Your task to perform on an android device: Open Google Maps and go to "Timeline" Image 0: 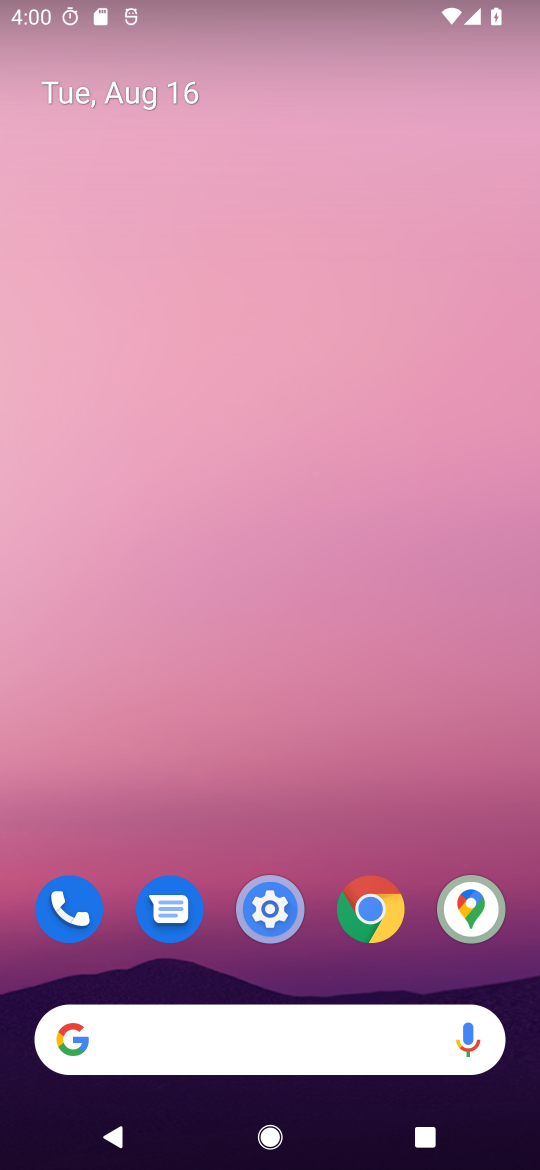
Step 0: click (473, 910)
Your task to perform on an android device: Open Google Maps and go to "Timeline" Image 1: 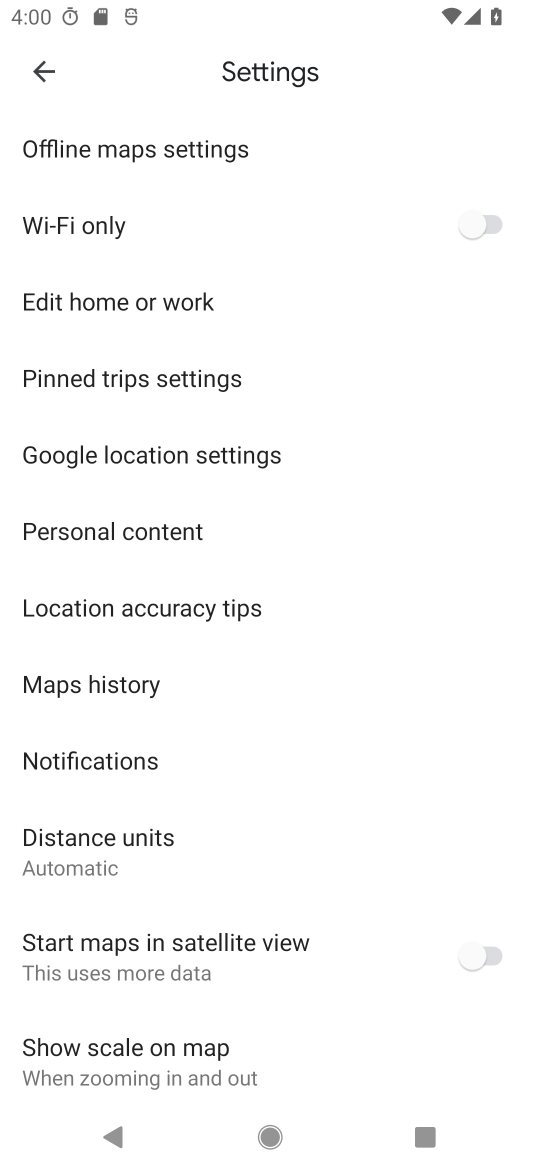
Step 1: click (33, 69)
Your task to perform on an android device: Open Google Maps and go to "Timeline" Image 2: 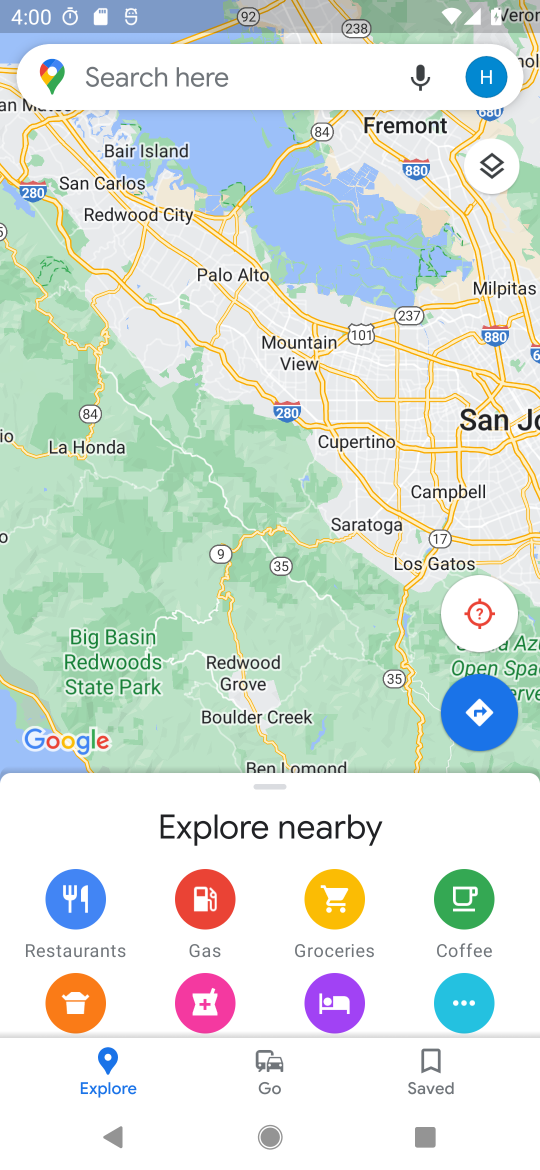
Step 2: click (51, 70)
Your task to perform on an android device: Open Google Maps and go to "Timeline" Image 3: 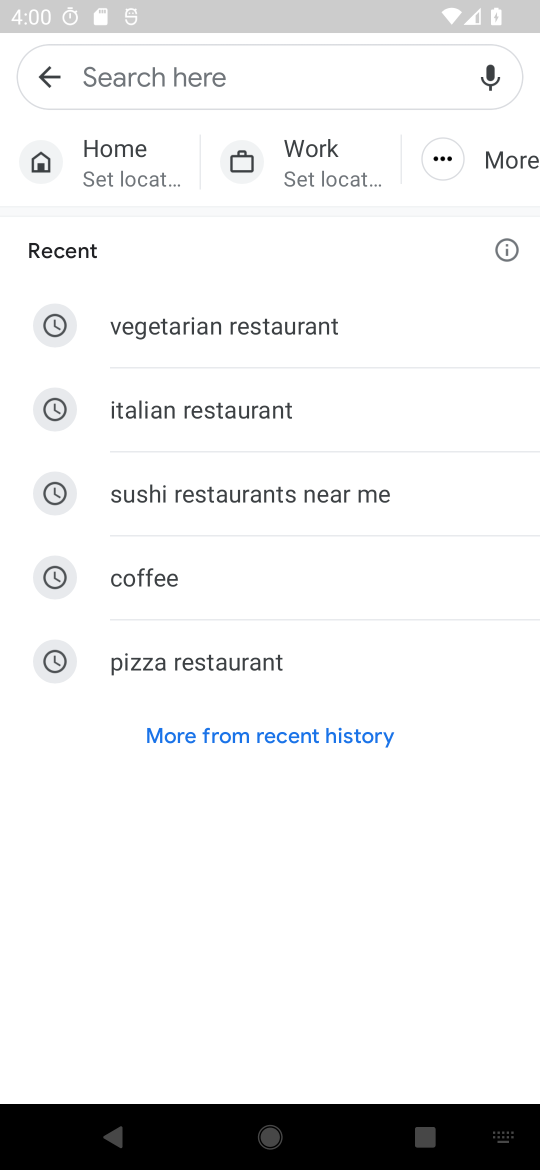
Step 3: click (48, 73)
Your task to perform on an android device: Open Google Maps and go to "Timeline" Image 4: 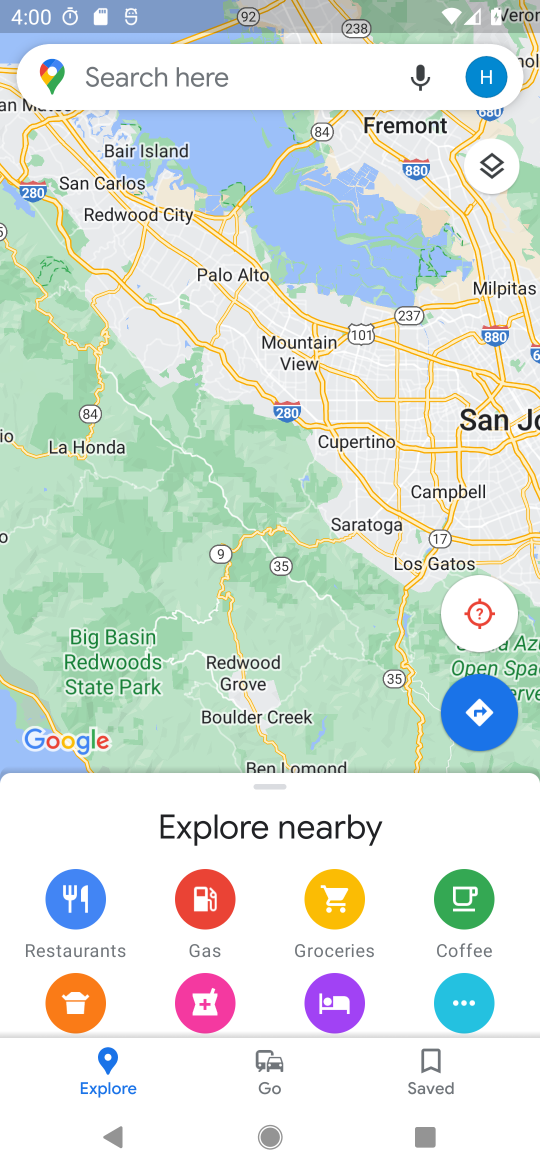
Step 4: click (427, 1065)
Your task to perform on an android device: Open Google Maps and go to "Timeline" Image 5: 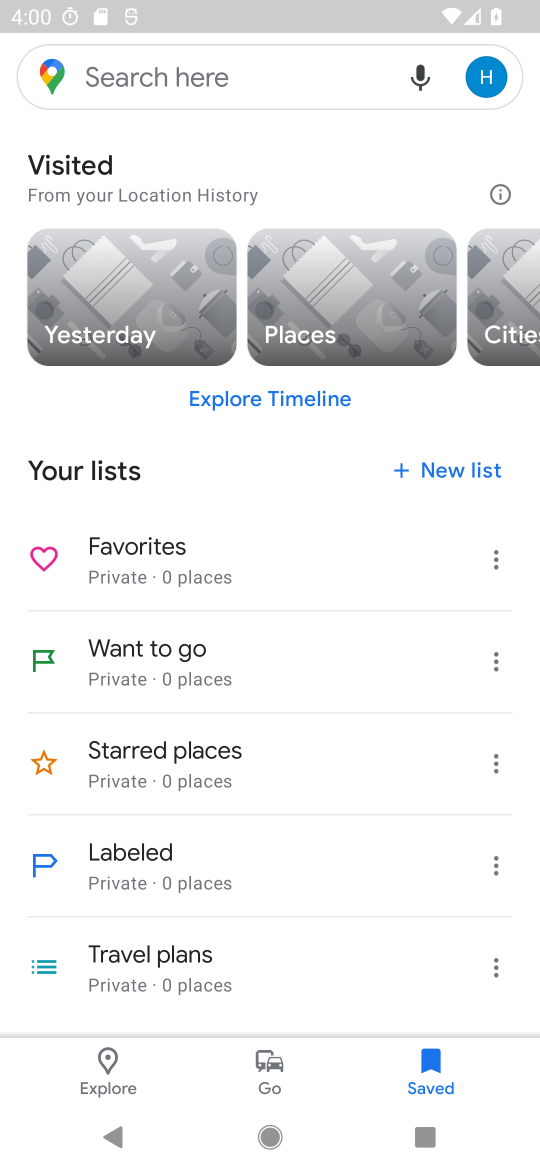
Step 5: click (308, 396)
Your task to perform on an android device: Open Google Maps and go to "Timeline" Image 6: 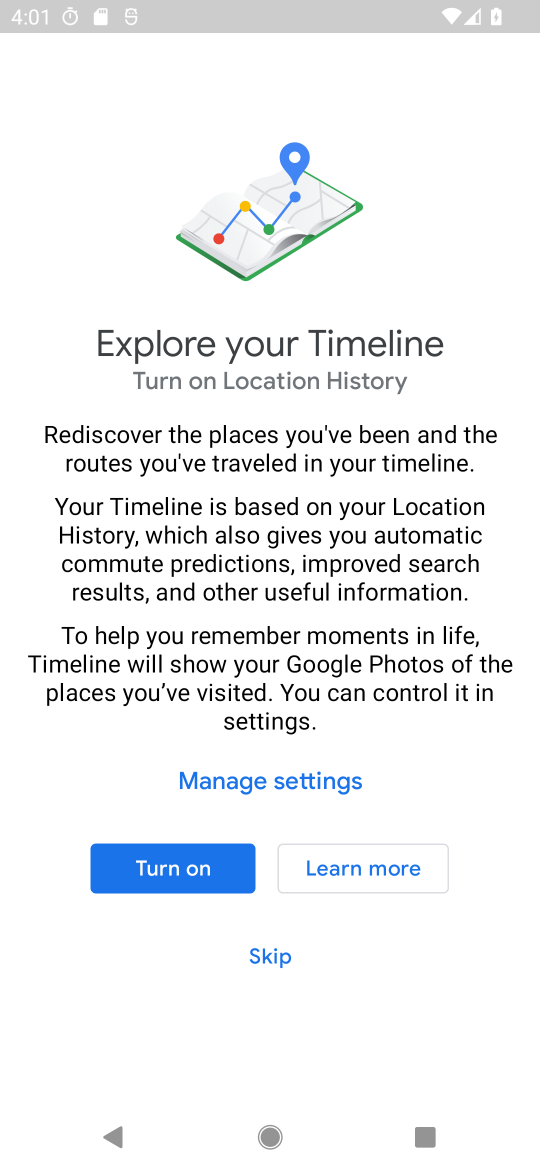
Step 6: click (180, 859)
Your task to perform on an android device: Open Google Maps and go to "Timeline" Image 7: 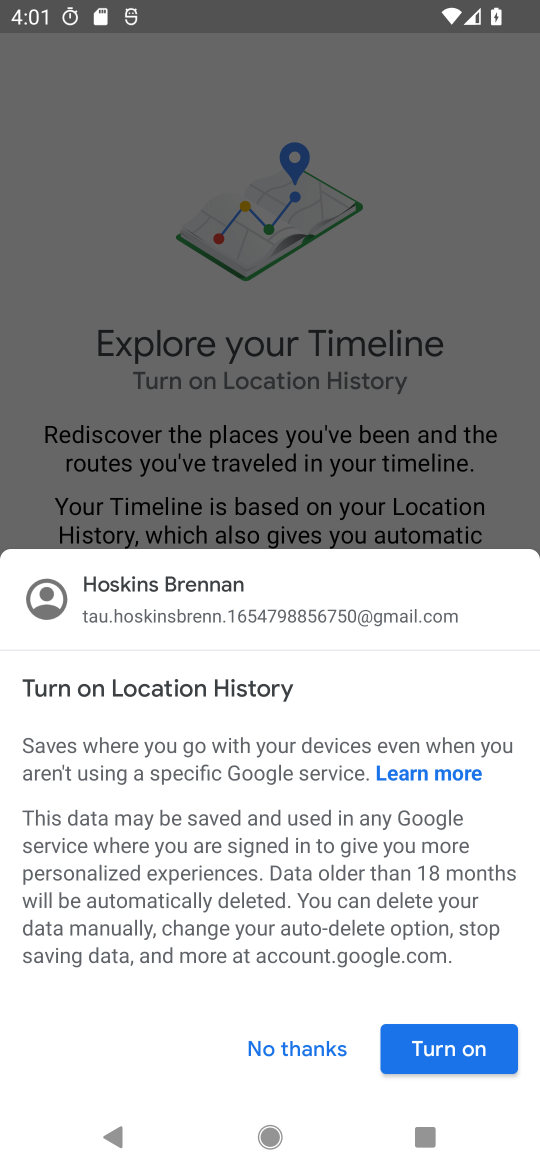
Step 7: click (451, 1033)
Your task to perform on an android device: Open Google Maps and go to "Timeline" Image 8: 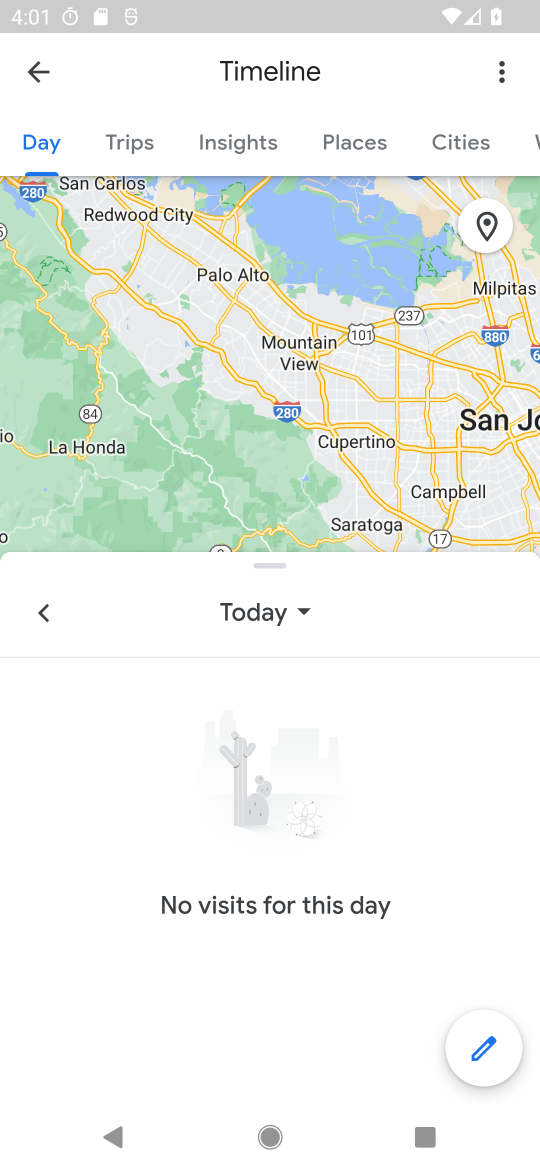
Step 8: task complete